Your task to perform on an android device: Open Google Chrome and click the shortcut for Amazon.com Image 0: 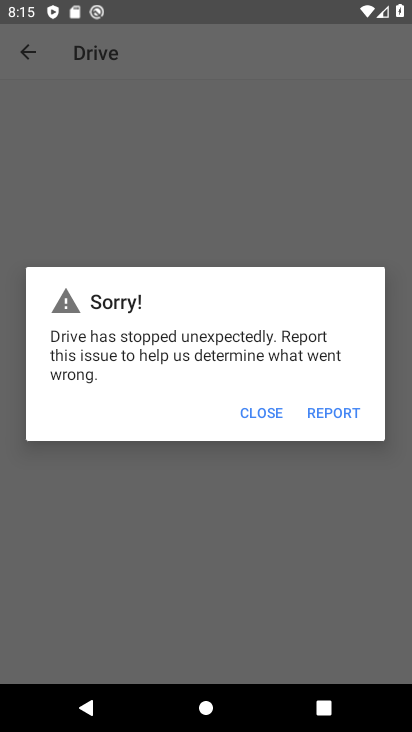
Step 0: press home button
Your task to perform on an android device: Open Google Chrome and click the shortcut for Amazon.com Image 1: 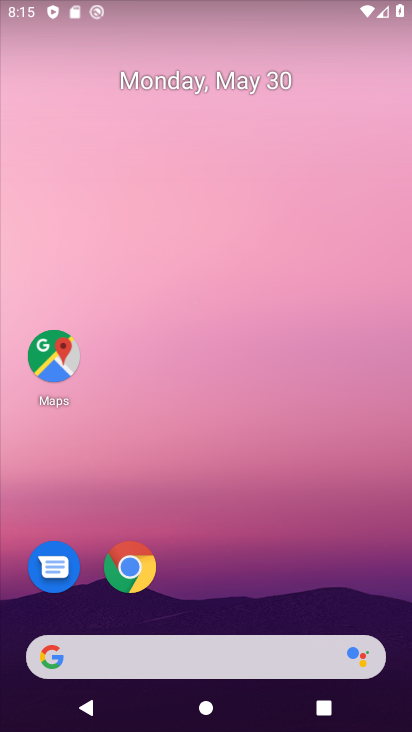
Step 1: click (147, 561)
Your task to perform on an android device: Open Google Chrome and click the shortcut for Amazon.com Image 2: 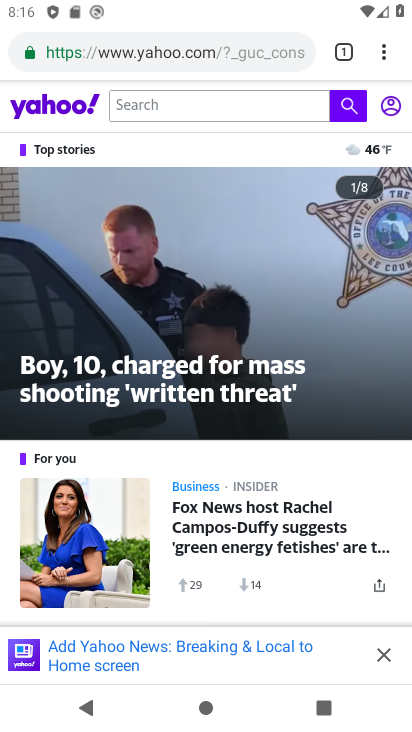
Step 2: click (340, 55)
Your task to perform on an android device: Open Google Chrome and click the shortcut for Amazon.com Image 3: 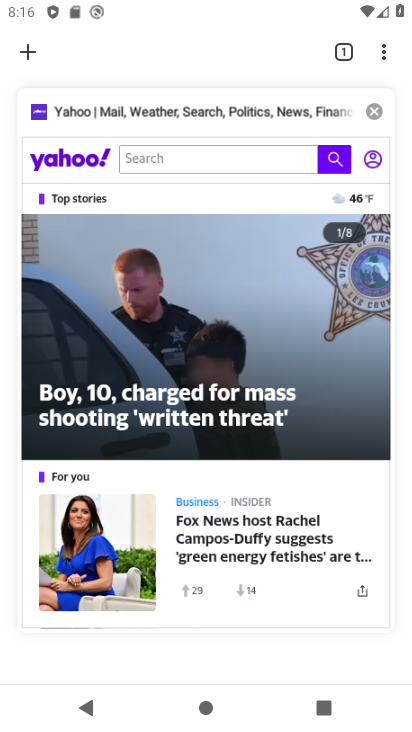
Step 3: click (36, 60)
Your task to perform on an android device: Open Google Chrome and click the shortcut for Amazon.com Image 4: 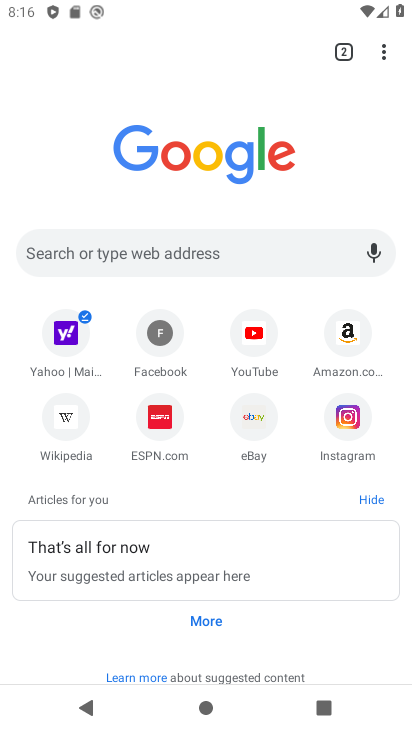
Step 4: click (333, 341)
Your task to perform on an android device: Open Google Chrome and click the shortcut for Amazon.com Image 5: 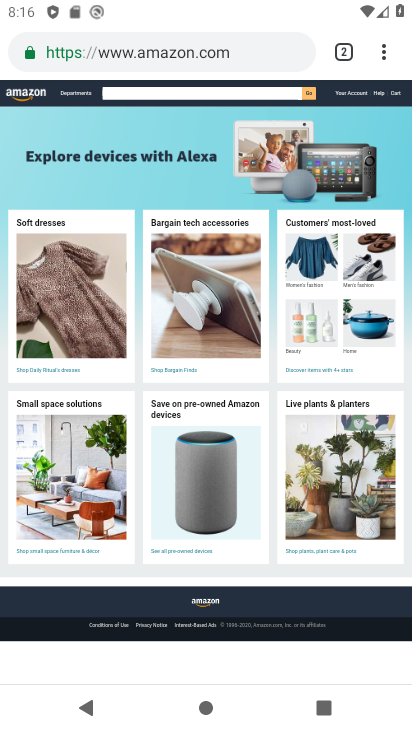
Step 5: task complete